Your task to perform on an android device: find which apps use the phone's location Image 0: 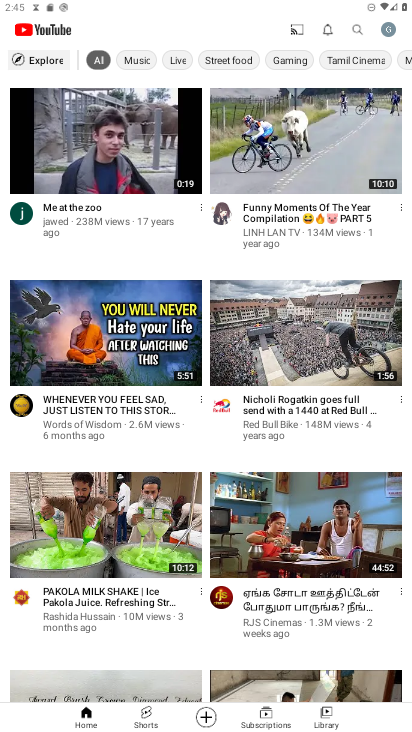
Step 0: press home button
Your task to perform on an android device: find which apps use the phone's location Image 1: 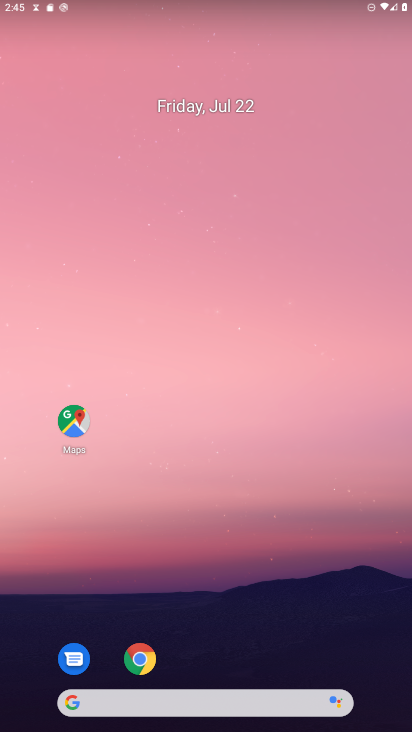
Step 1: drag from (299, 562) to (255, 108)
Your task to perform on an android device: find which apps use the phone's location Image 2: 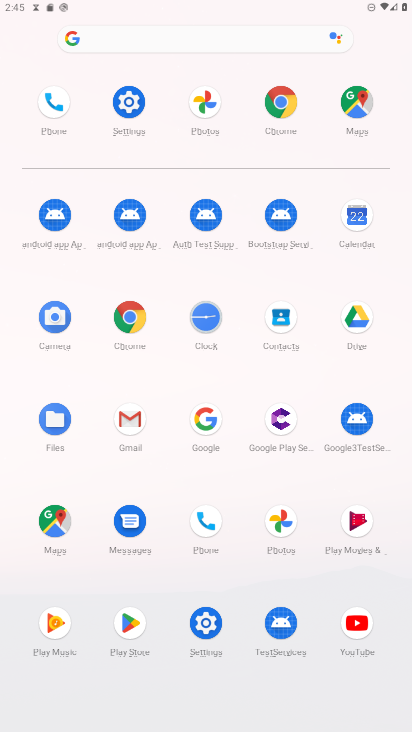
Step 2: click (126, 106)
Your task to perform on an android device: find which apps use the phone's location Image 3: 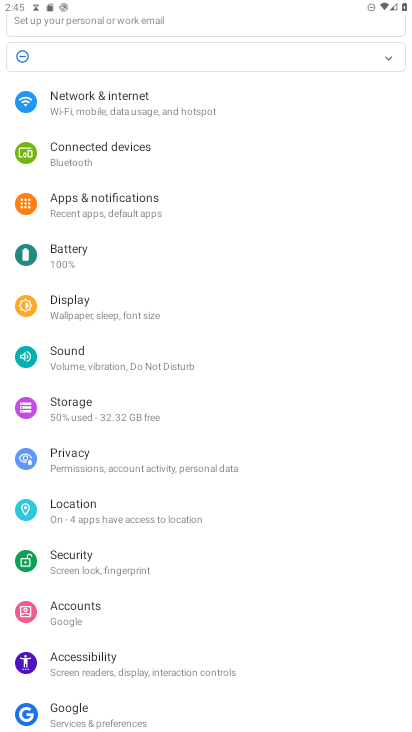
Step 3: click (115, 518)
Your task to perform on an android device: find which apps use the phone's location Image 4: 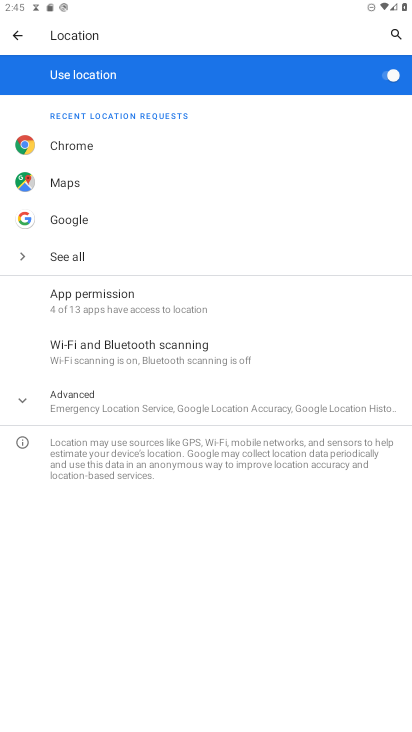
Step 4: click (82, 410)
Your task to perform on an android device: find which apps use the phone's location Image 5: 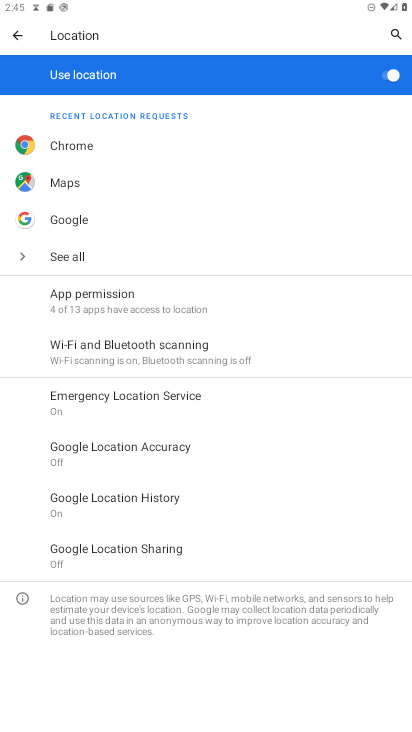
Step 5: click (77, 303)
Your task to perform on an android device: find which apps use the phone's location Image 6: 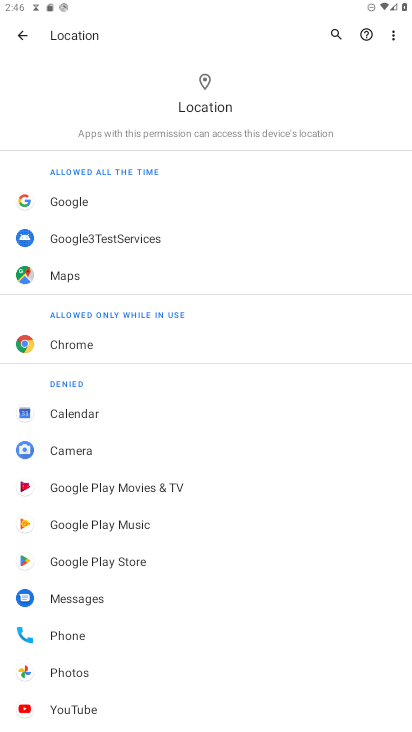
Step 6: task complete